Your task to perform on an android device: turn notification dots off Image 0: 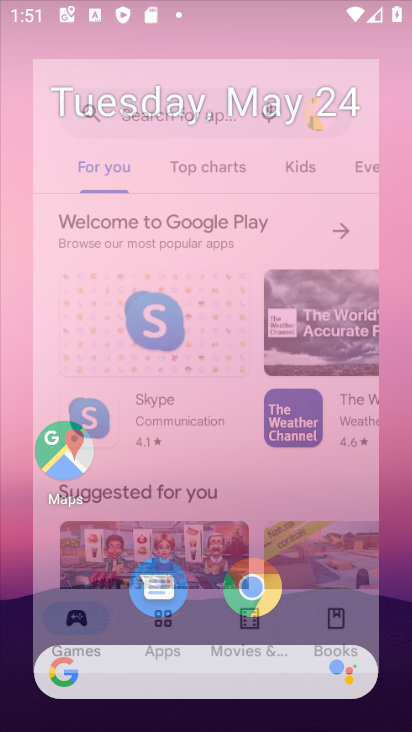
Step 0: press home button
Your task to perform on an android device: turn notification dots off Image 1: 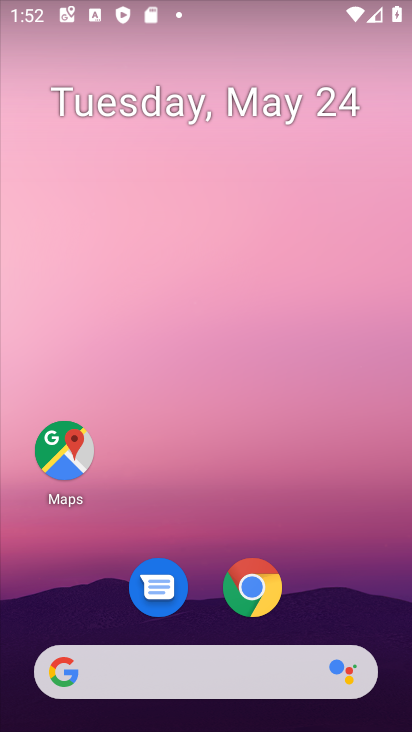
Step 1: drag from (113, 712) to (190, 51)
Your task to perform on an android device: turn notification dots off Image 2: 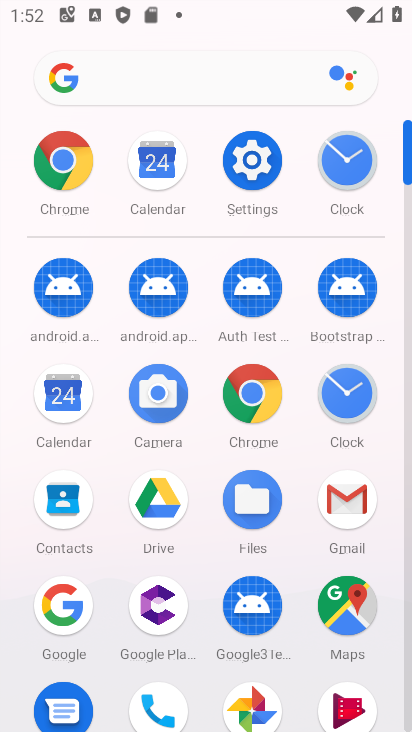
Step 2: click (254, 145)
Your task to perform on an android device: turn notification dots off Image 3: 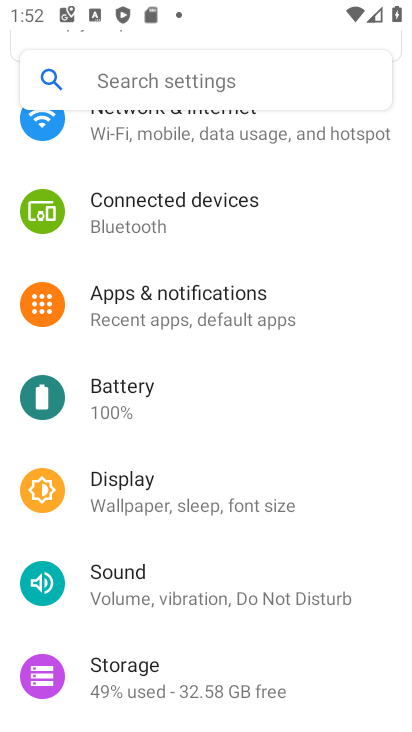
Step 3: drag from (242, 691) to (210, 179)
Your task to perform on an android device: turn notification dots off Image 4: 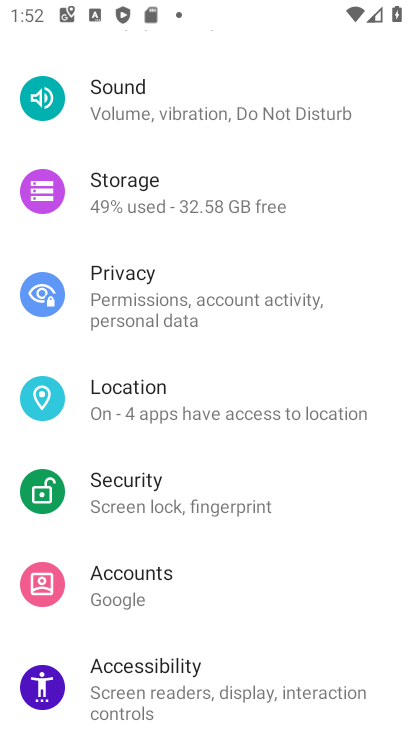
Step 4: drag from (284, 226) to (242, 639)
Your task to perform on an android device: turn notification dots off Image 5: 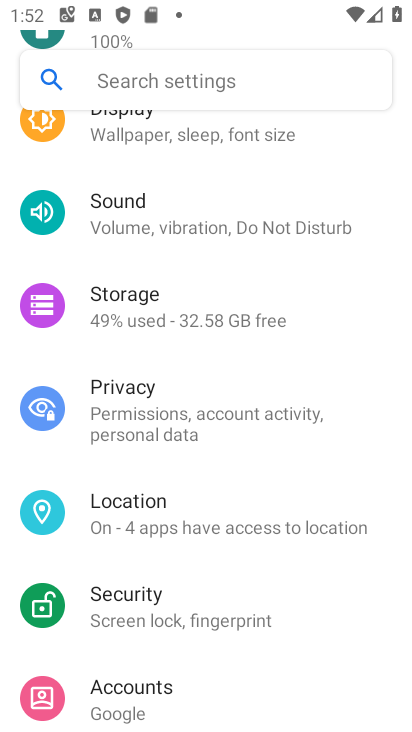
Step 5: drag from (227, 180) to (255, 472)
Your task to perform on an android device: turn notification dots off Image 6: 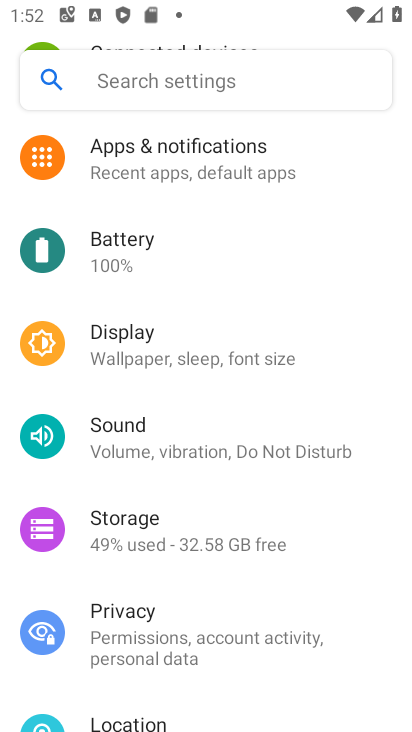
Step 6: click (259, 173)
Your task to perform on an android device: turn notification dots off Image 7: 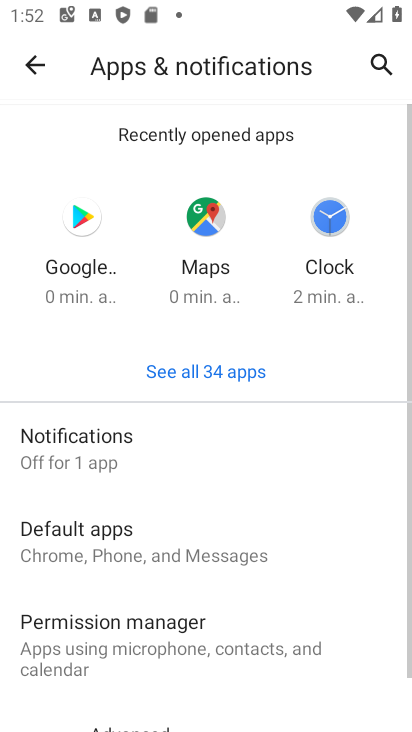
Step 7: click (229, 436)
Your task to perform on an android device: turn notification dots off Image 8: 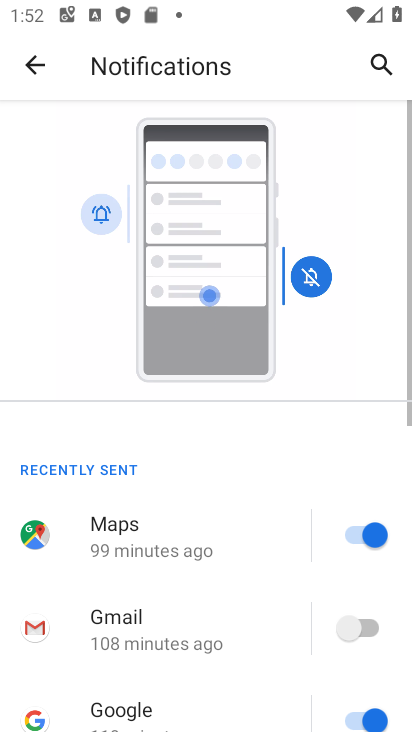
Step 8: drag from (253, 611) to (215, 108)
Your task to perform on an android device: turn notification dots off Image 9: 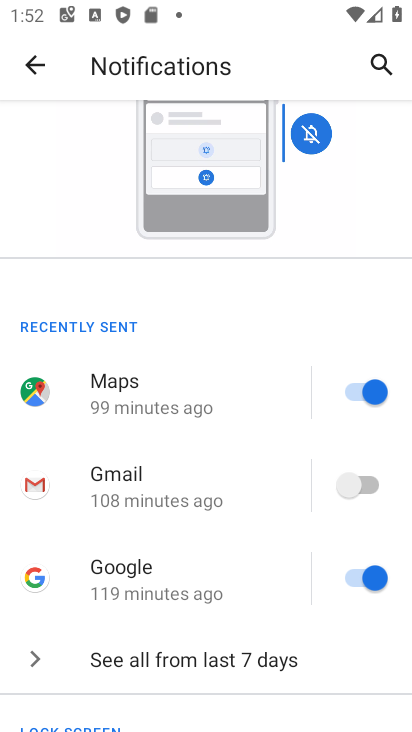
Step 9: drag from (253, 680) to (256, 151)
Your task to perform on an android device: turn notification dots off Image 10: 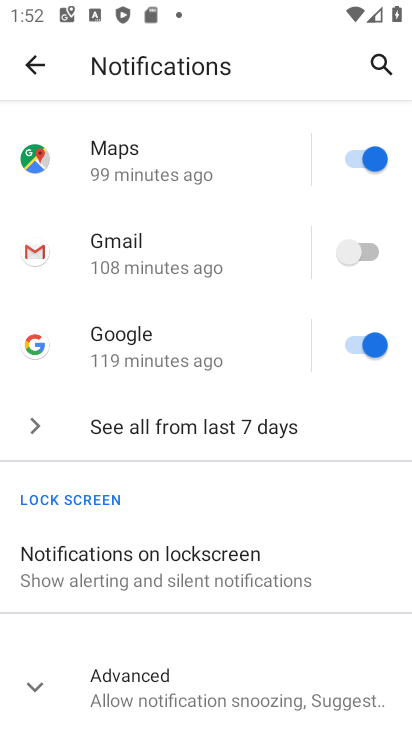
Step 10: click (226, 680)
Your task to perform on an android device: turn notification dots off Image 11: 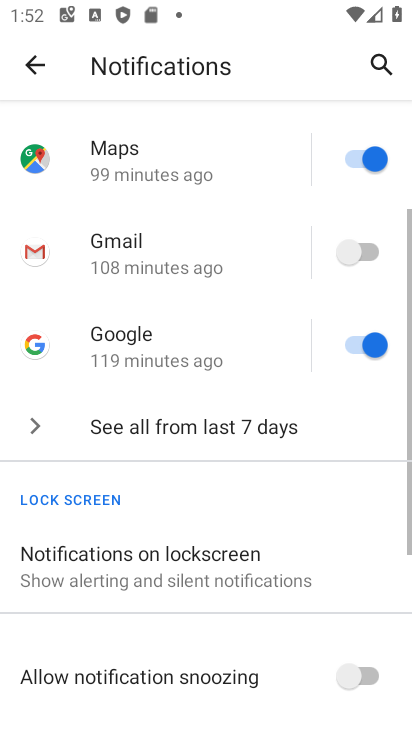
Step 11: task complete